Your task to perform on an android device: check battery use Image 0: 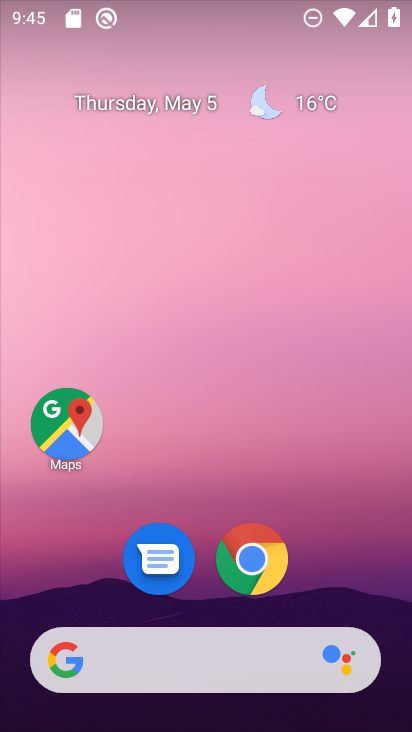
Step 0: drag from (358, 565) to (329, 6)
Your task to perform on an android device: check battery use Image 1: 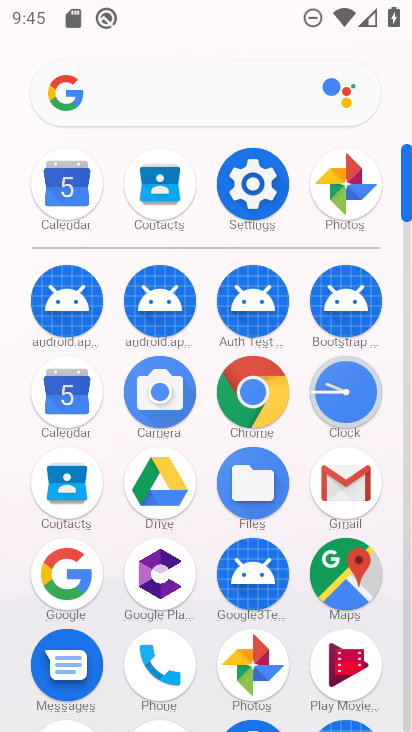
Step 1: click (247, 206)
Your task to perform on an android device: check battery use Image 2: 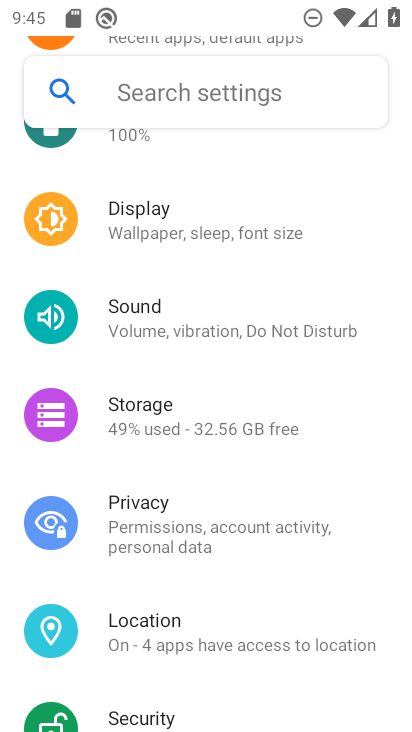
Step 2: drag from (340, 462) to (342, 569)
Your task to perform on an android device: check battery use Image 3: 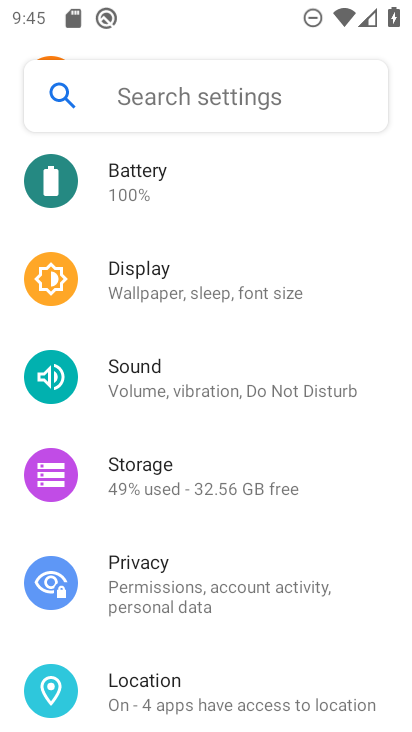
Step 3: click (138, 194)
Your task to perform on an android device: check battery use Image 4: 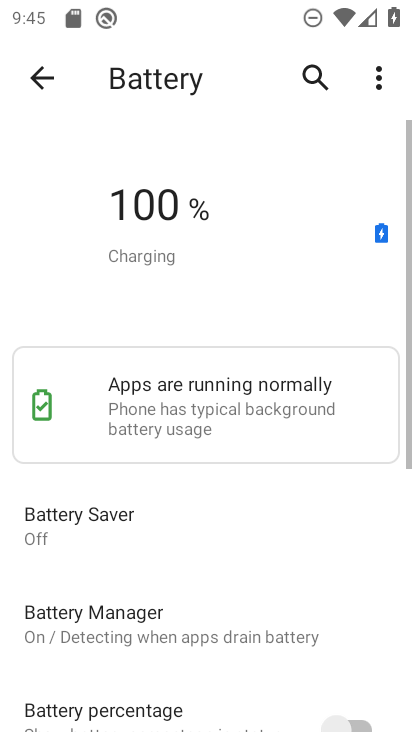
Step 4: click (375, 87)
Your task to perform on an android device: check battery use Image 5: 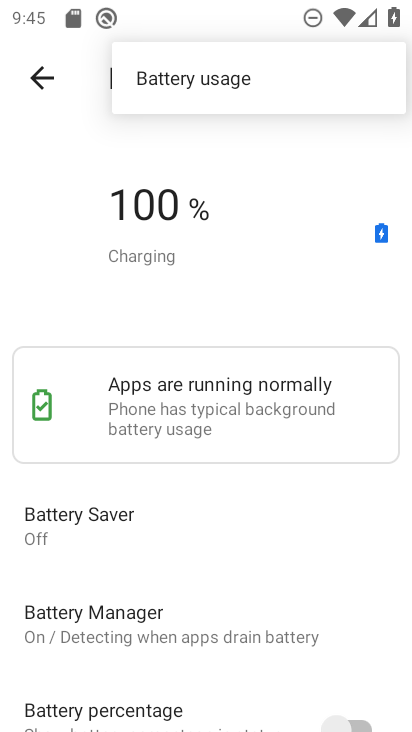
Step 5: click (219, 80)
Your task to perform on an android device: check battery use Image 6: 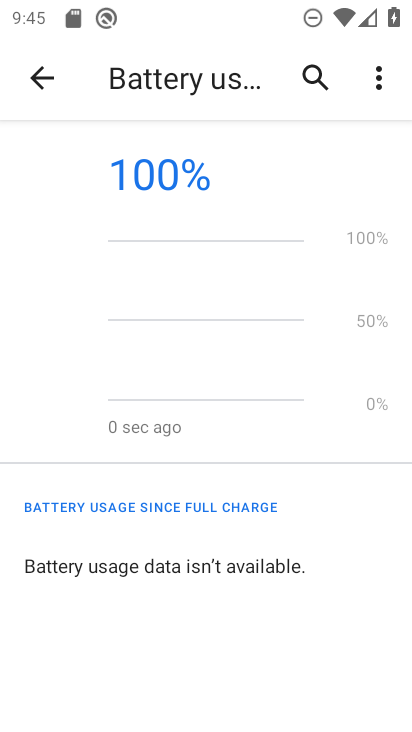
Step 6: task complete